Your task to perform on an android device: turn on priority inbox in the gmail app Image 0: 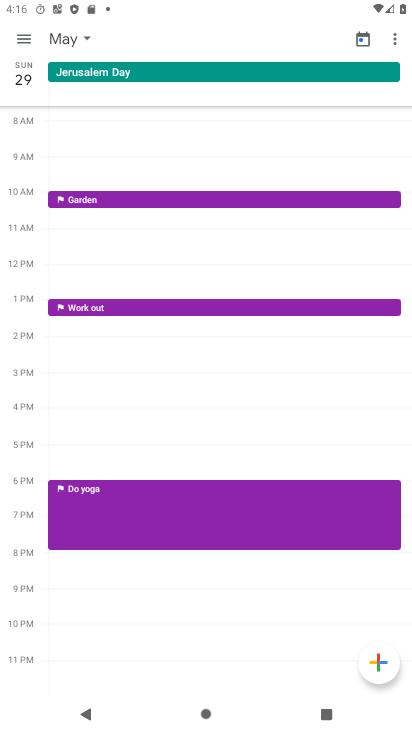
Step 0: press home button
Your task to perform on an android device: turn on priority inbox in the gmail app Image 1: 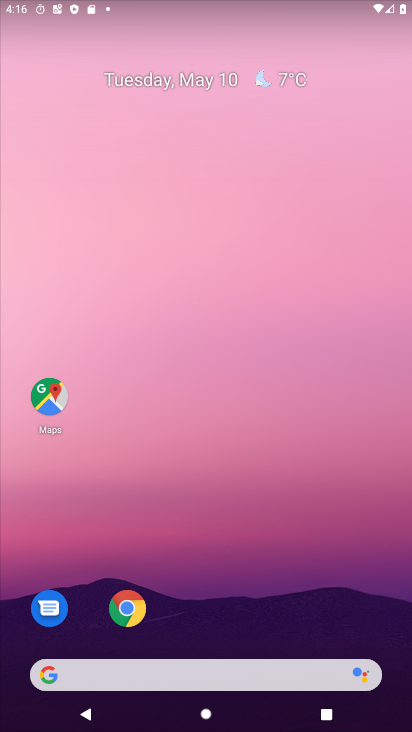
Step 1: drag from (373, 633) to (371, 693)
Your task to perform on an android device: turn on priority inbox in the gmail app Image 2: 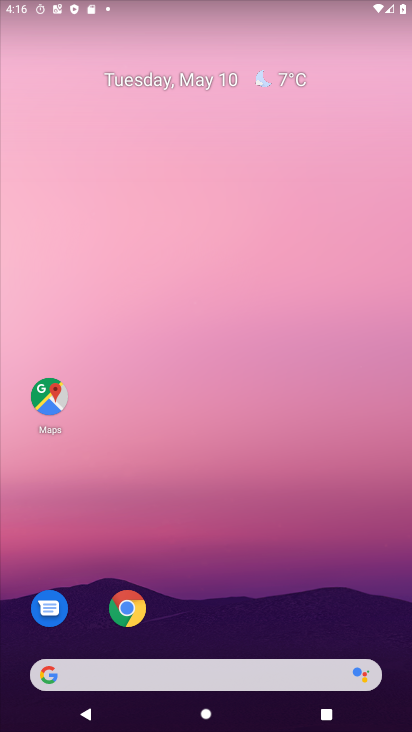
Step 2: drag from (349, 618) to (341, 1)
Your task to perform on an android device: turn on priority inbox in the gmail app Image 3: 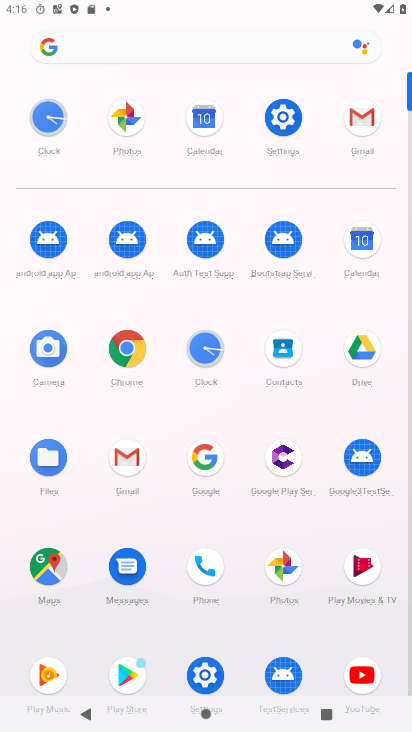
Step 3: click (356, 123)
Your task to perform on an android device: turn on priority inbox in the gmail app Image 4: 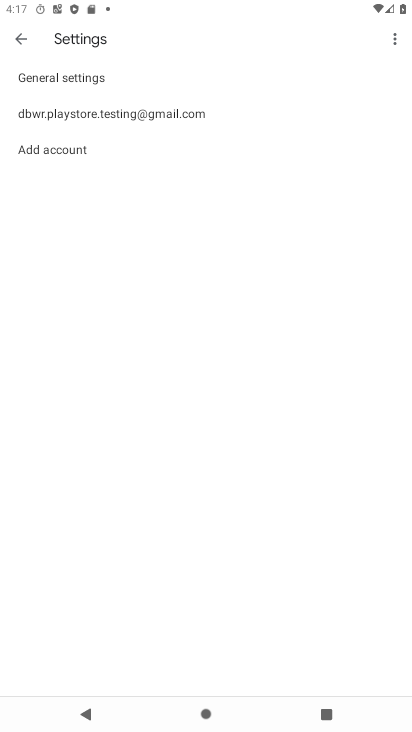
Step 4: click (41, 122)
Your task to perform on an android device: turn on priority inbox in the gmail app Image 5: 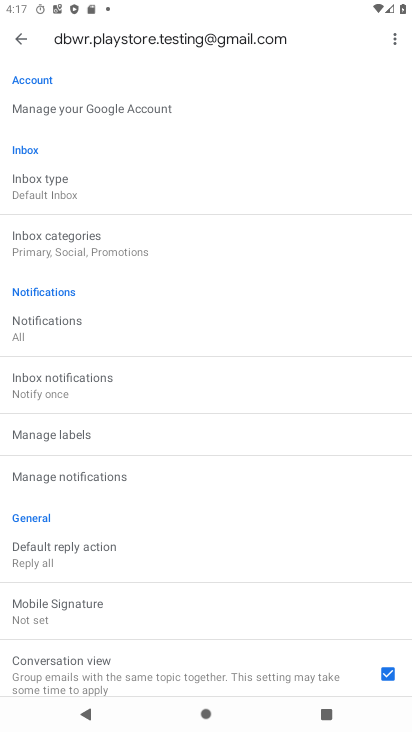
Step 5: click (31, 195)
Your task to perform on an android device: turn on priority inbox in the gmail app Image 6: 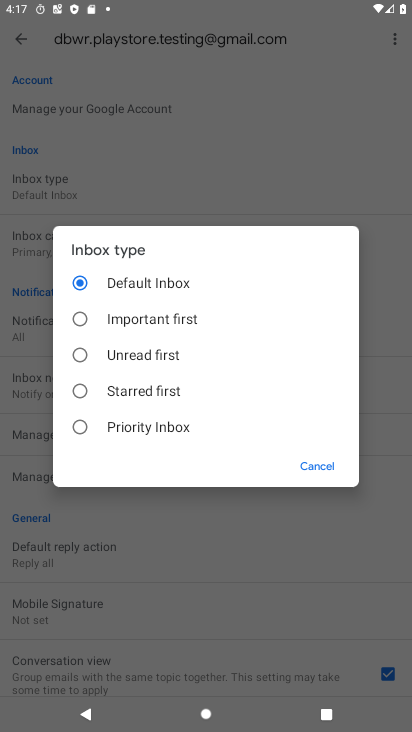
Step 6: click (75, 428)
Your task to perform on an android device: turn on priority inbox in the gmail app Image 7: 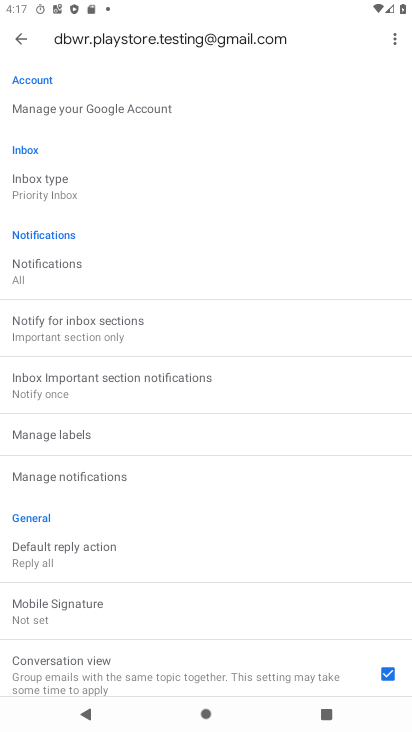
Step 7: task complete